Your task to perform on an android device: Open the map Image 0: 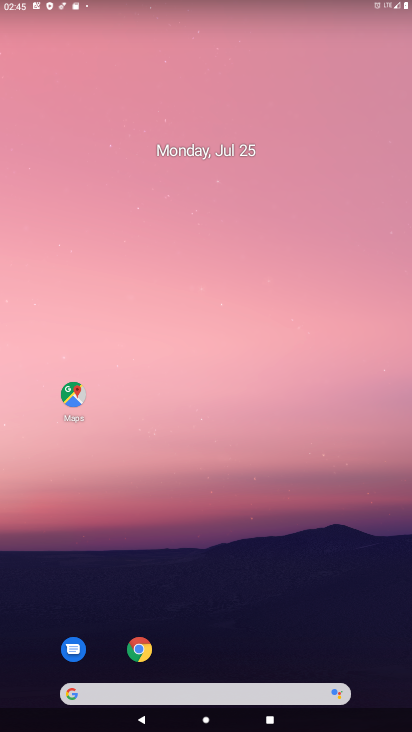
Step 0: click (70, 397)
Your task to perform on an android device: Open the map Image 1: 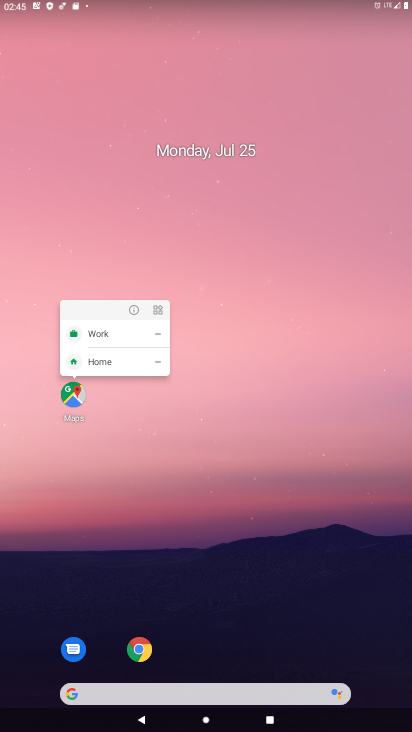
Step 1: click (72, 393)
Your task to perform on an android device: Open the map Image 2: 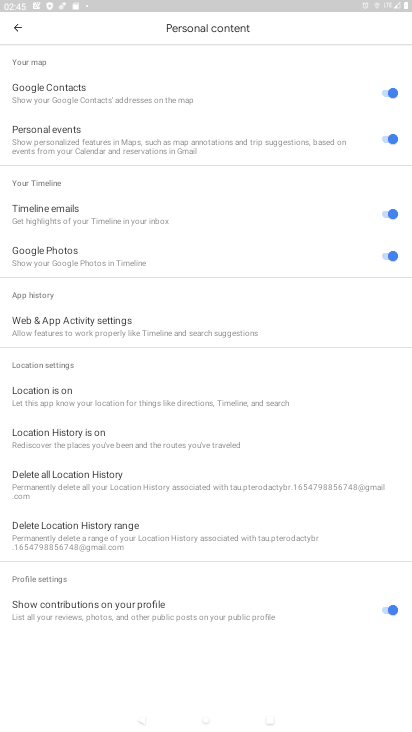
Step 2: task complete